Your task to perform on an android device: What's the weather going to be tomorrow? Image 0: 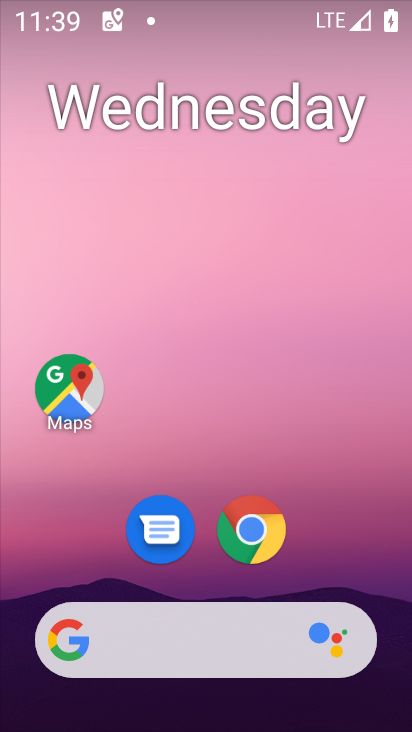
Step 0: drag from (4, 188) to (386, 292)
Your task to perform on an android device: What's the weather going to be tomorrow? Image 1: 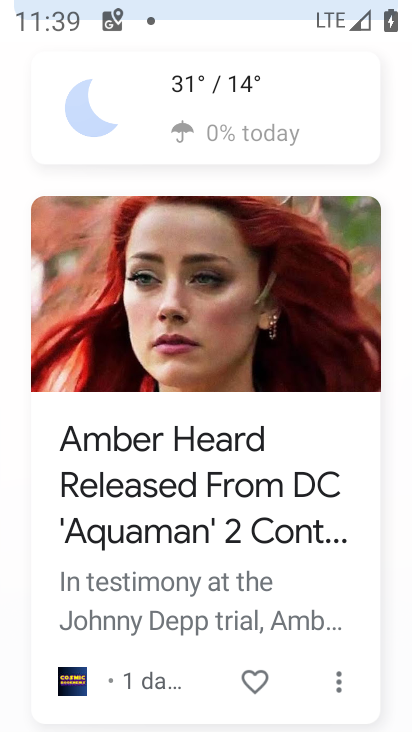
Step 1: click (240, 107)
Your task to perform on an android device: What's the weather going to be tomorrow? Image 2: 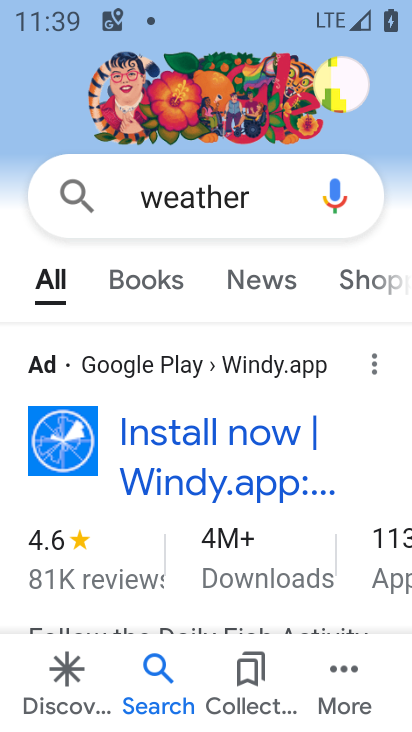
Step 2: drag from (228, 588) to (255, 140)
Your task to perform on an android device: What's the weather going to be tomorrow? Image 3: 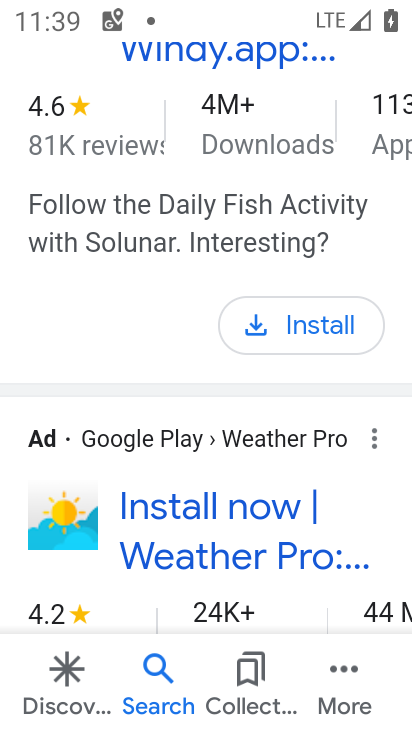
Step 3: drag from (210, 460) to (231, 72)
Your task to perform on an android device: What's the weather going to be tomorrow? Image 4: 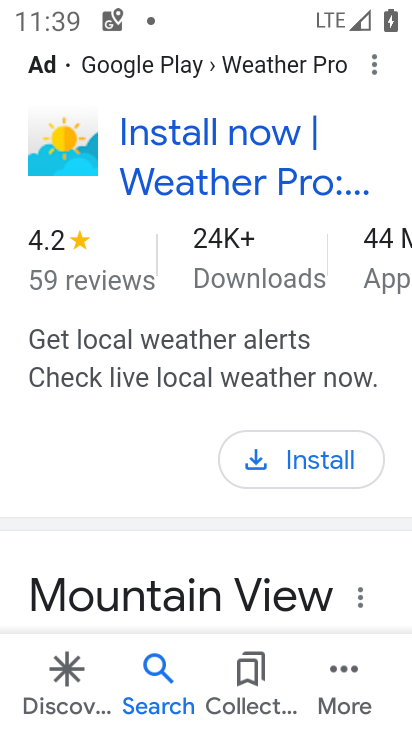
Step 4: drag from (209, 547) to (210, 151)
Your task to perform on an android device: What's the weather going to be tomorrow? Image 5: 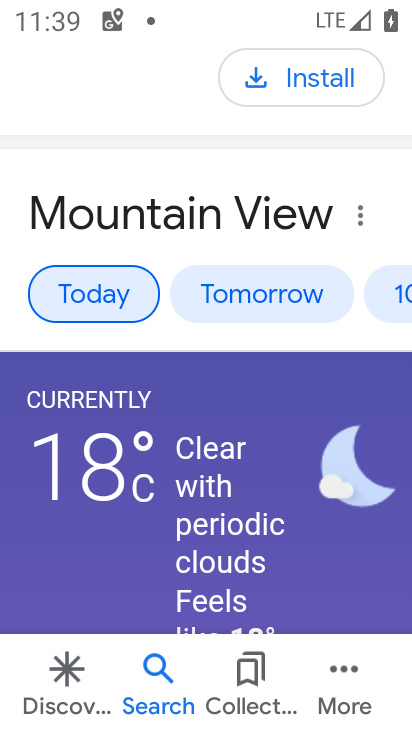
Step 5: click (246, 292)
Your task to perform on an android device: What's the weather going to be tomorrow? Image 6: 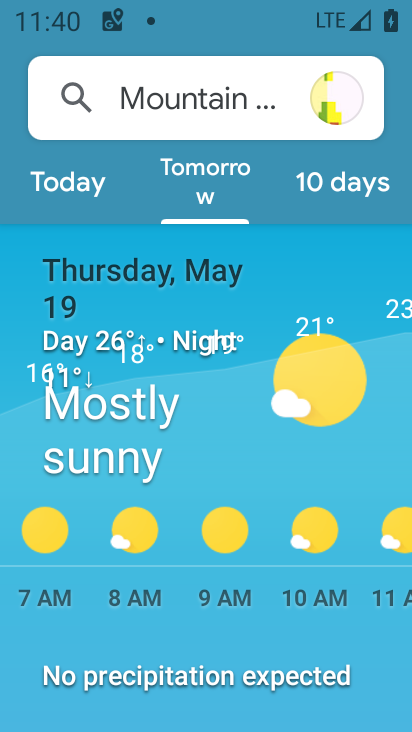
Step 6: task complete